Your task to perform on an android device: Open network settings Image 0: 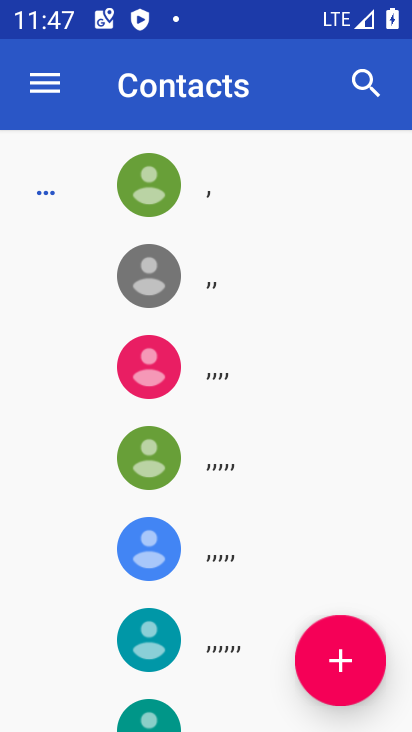
Step 0: press home button
Your task to perform on an android device: Open network settings Image 1: 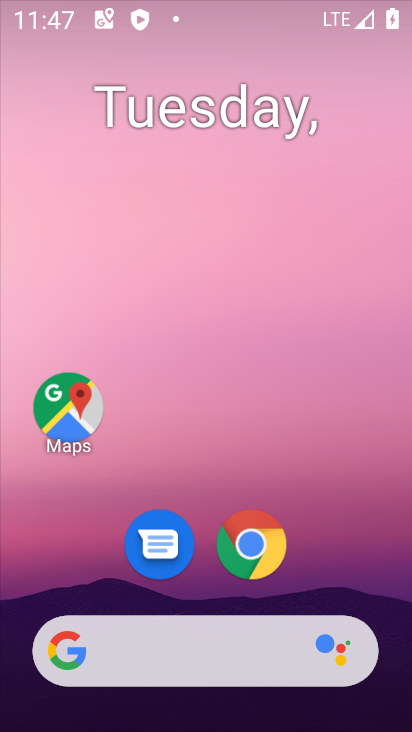
Step 1: drag from (393, 653) to (310, 126)
Your task to perform on an android device: Open network settings Image 2: 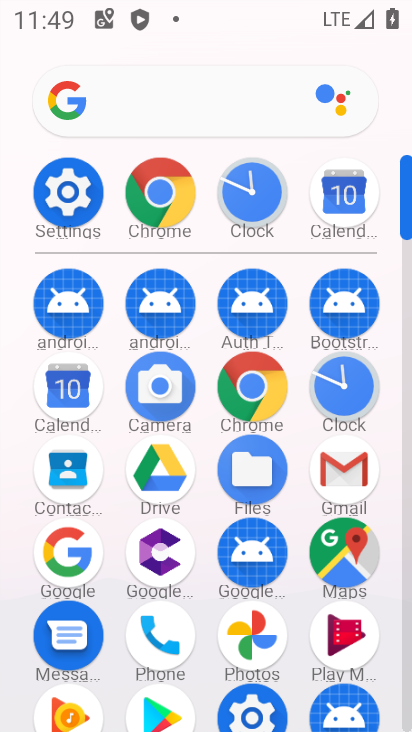
Step 2: click (66, 217)
Your task to perform on an android device: Open network settings Image 3: 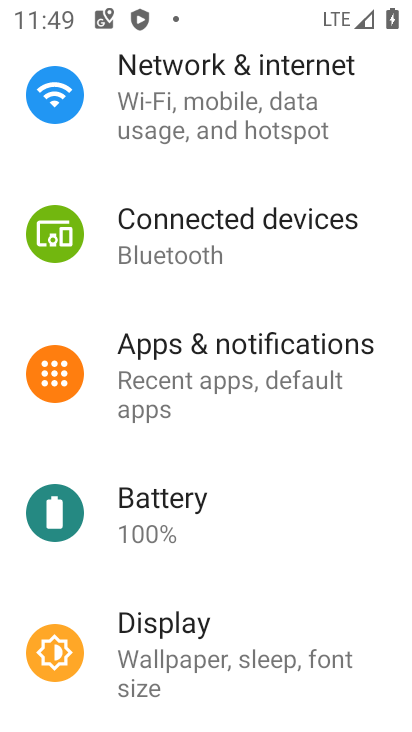
Step 3: click (170, 110)
Your task to perform on an android device: Open network settings Image 4: 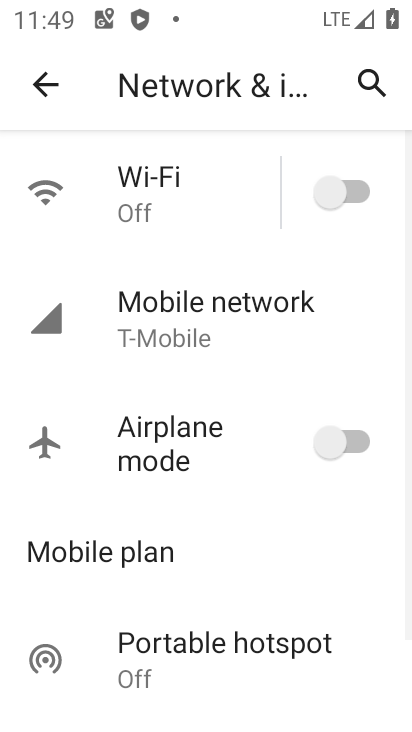
Step 4: task complete